Your task to perform on an android device: Search for Mexican restaurants on Maps Image 0: 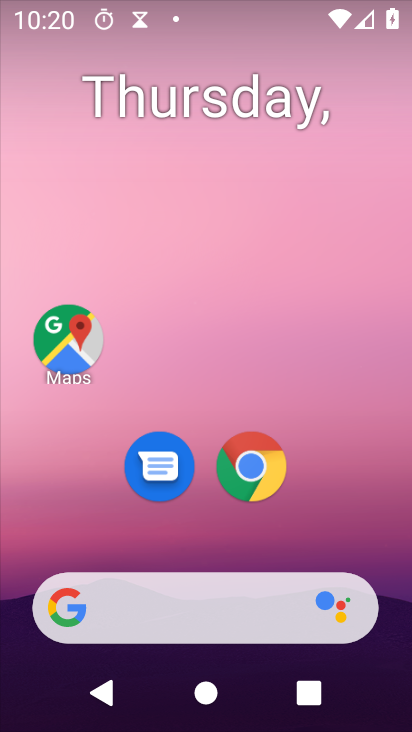
Step 0: drag from (169, 602) to (254, 195)
Your task to perform on an android device: Search for Mexican restaurants on Maps Image 1: 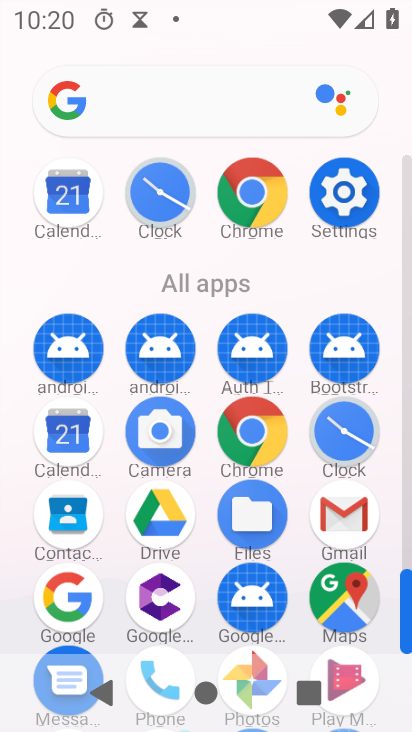
Step 1: click (346, 612)
Your task to perform on an android device: Search for Mexican restaurants on Maps Image 2: 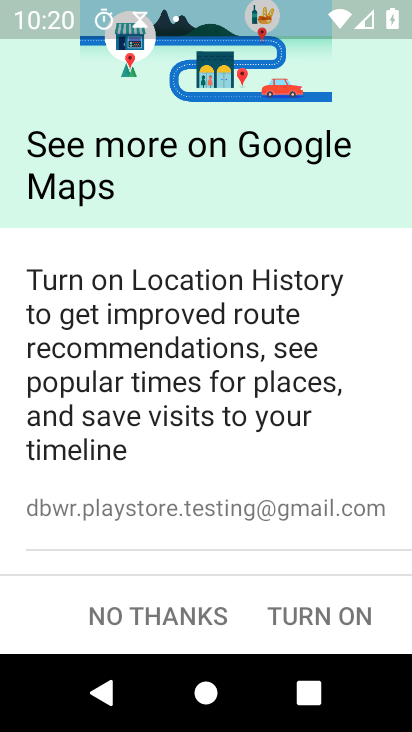
Step 2: click (163, 614)
Your task to perform on an android device: Search for Mexican restaurants on Maps Image 3: 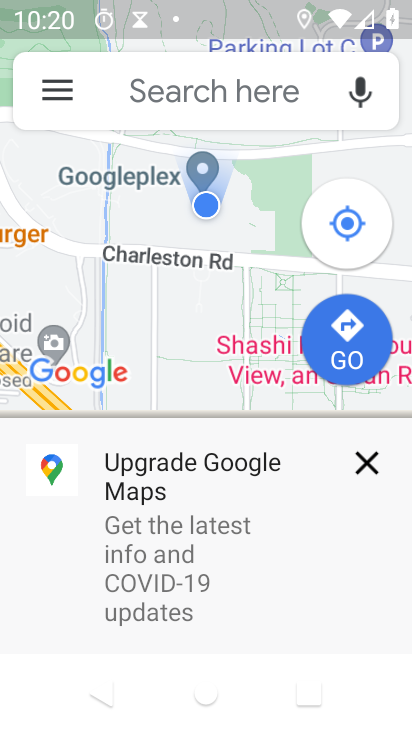
Step 3: click (183, 77)
Your task to perform on an android device: Search for Mexican restaurants on Maps Image 4: 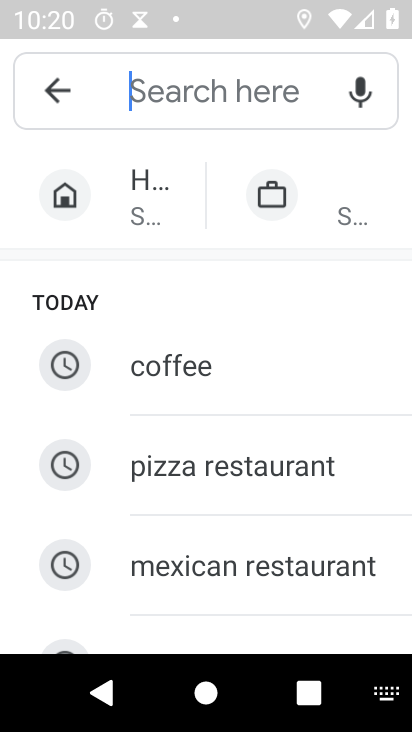
Step 4: click (216, 569)
Your task to perform on an android device: Search for Mexican restaurants on Maps Image 5: 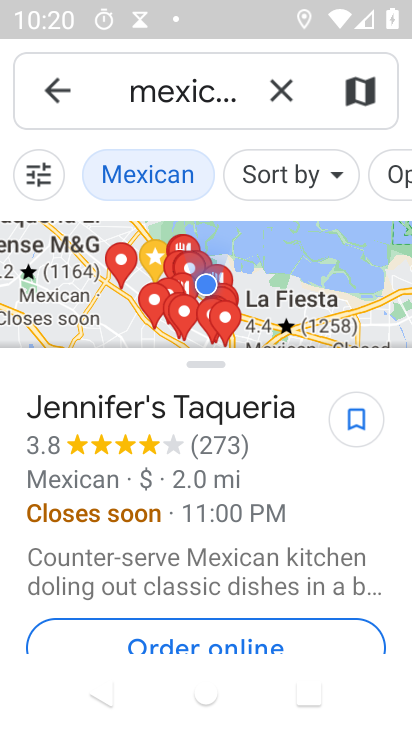
Step 5: task complete